Your task to perform on an android device: open a bookmark in the chrome app Image 0: 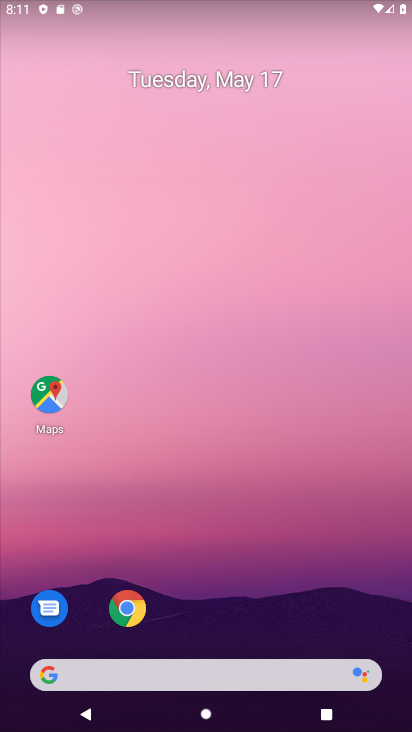
Step 0: drag from (369, 621) to (341, 201)
Your task to perform on an android device: open a bookmark in the chrome app Image 1: 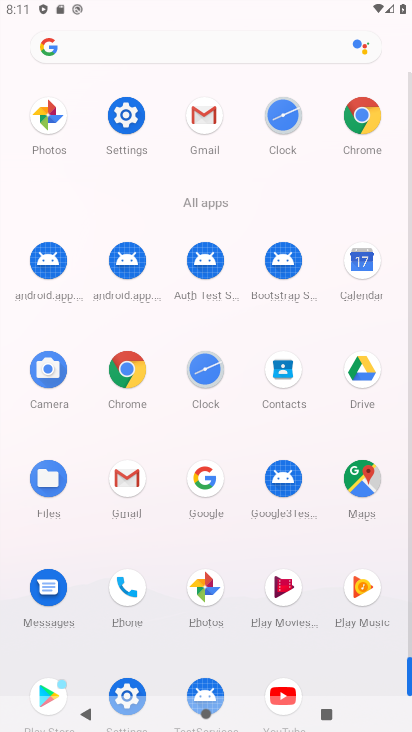
Step 1: click (360, 109)
Your task to perform on an android device: open a bookmark in the chrome app Image 2: 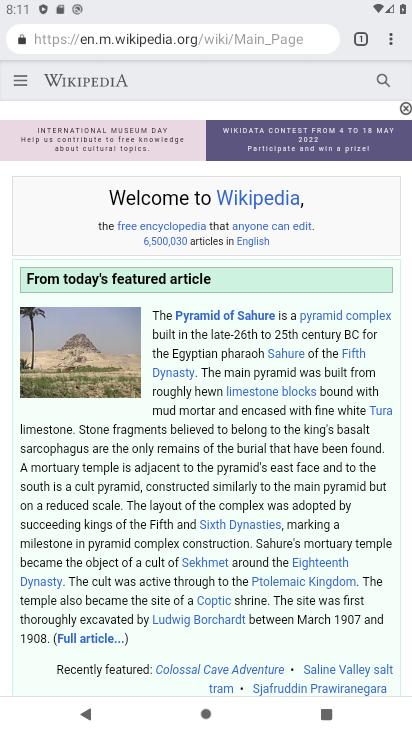
Step 2: click (391, 41)
Your task to perform on an android device: open a bookmark in the chrome app Image 3: 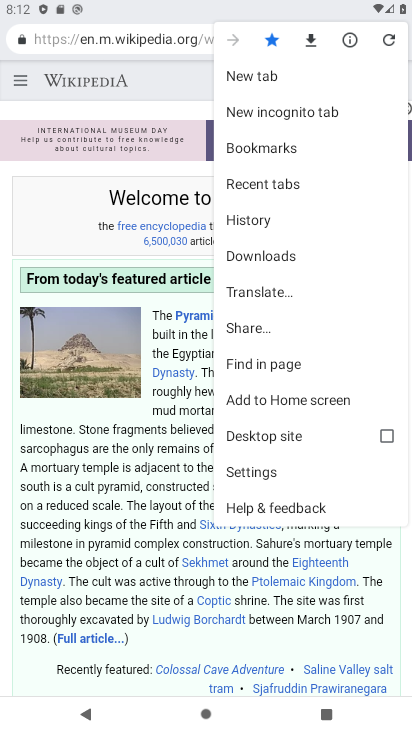
Step 3: click (287, 151)
Your task to perform on an android device: open a bookmark in the chrome app Image 4: 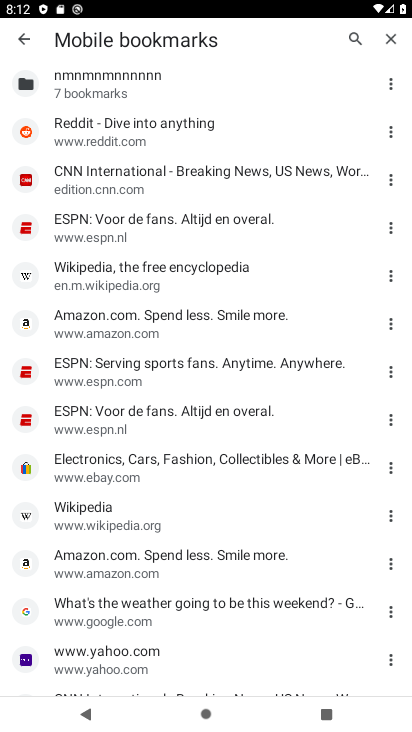
Step 4: click (117, 134)
Your task to perform on an android device: open a bookmark in the chrome app Image 5: 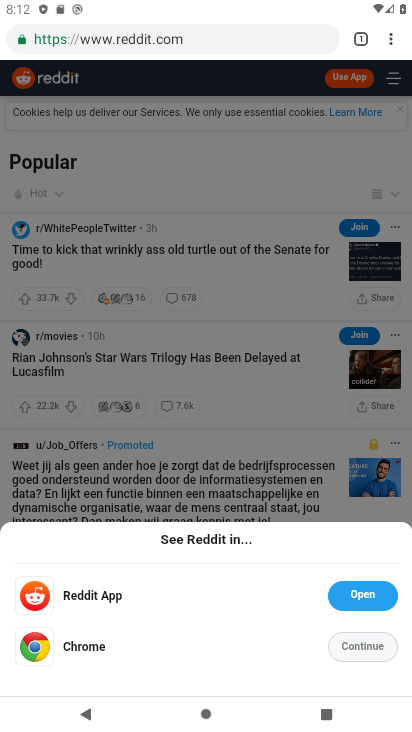
Step 5: task complete